Your task to perform on an android device: Go to internet settings Image 0: 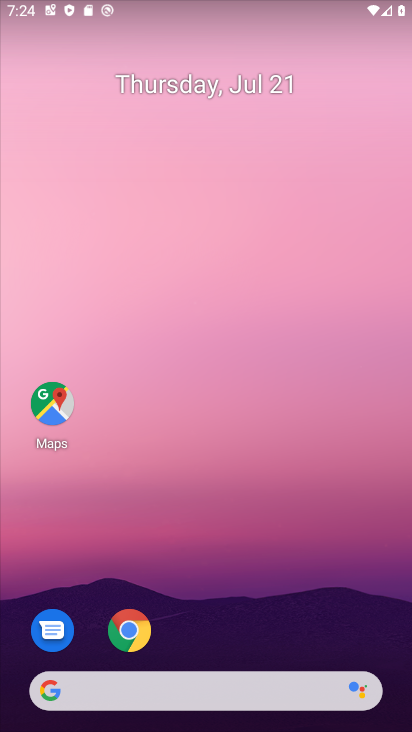
Step 0: drag from (166, 712) to (75, 203)
Your task to perform on an android device: Go to internet settings Image 1: 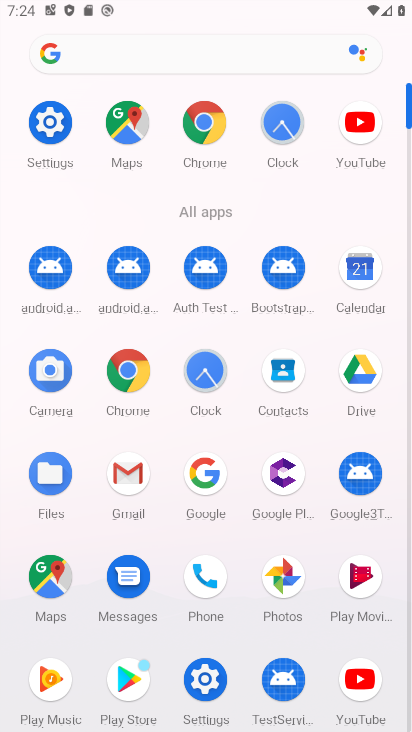
Step 1: click (50, 126)
Your task to perform on an android device: Go to internet settings Image 2: 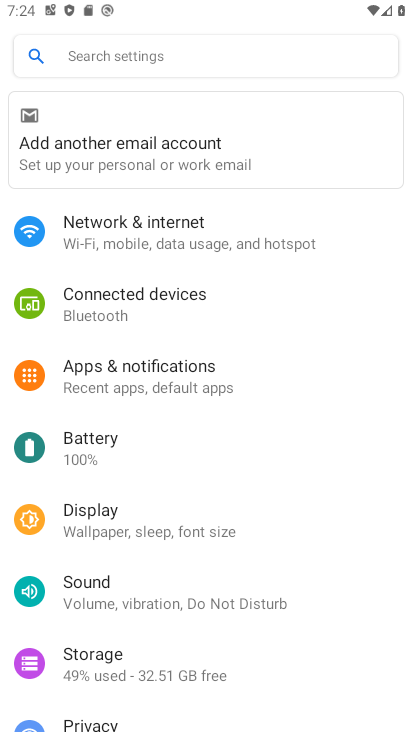
Step 2: click (172, 237)
Your task to perform on an android device: Go to internet settings Image 3: 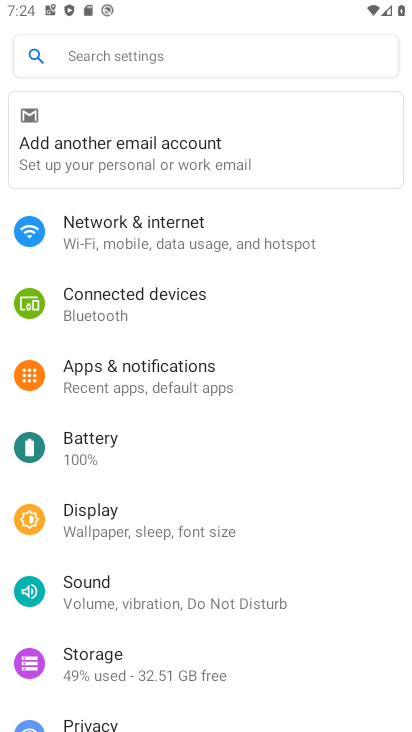
Step 3: click (173, 237)
Your task to perform on an android device: Go to internet settings Image 4: 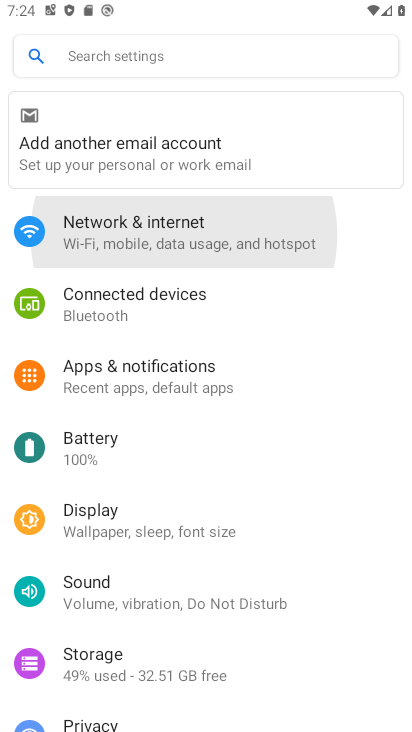
Step 4: click (173, 237)
Your task to perform on an android device: Go to internet settings Image 5: 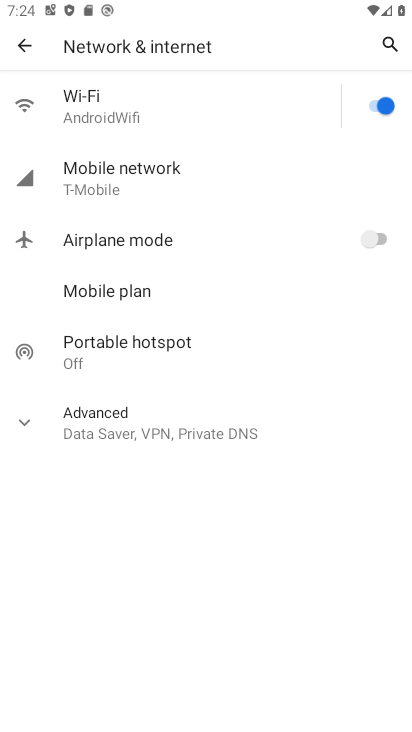
Step 5: task complete